Your task to perform on an android device: Open battery settings Image 0: 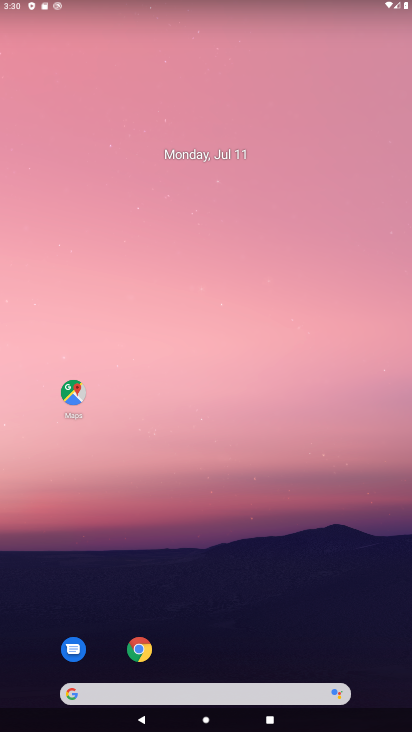
Step 0: drag from (200, 631) to (206, 167)
Your task to perform on an android device: Open battery settings Image 1: 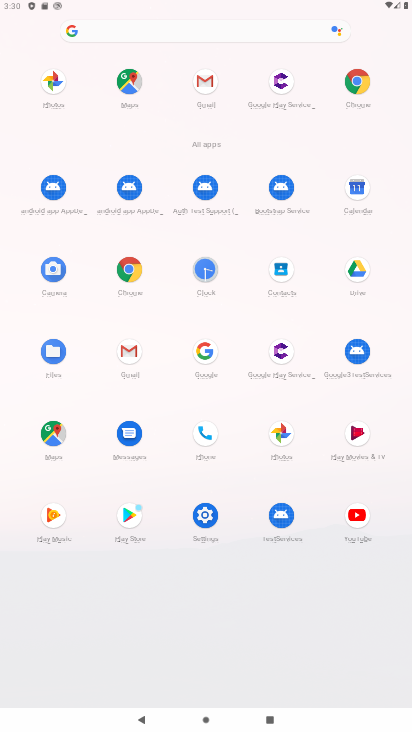
Step 1: click (210, 515)
Your task to perform on an android device: Open battery settings Image 2: 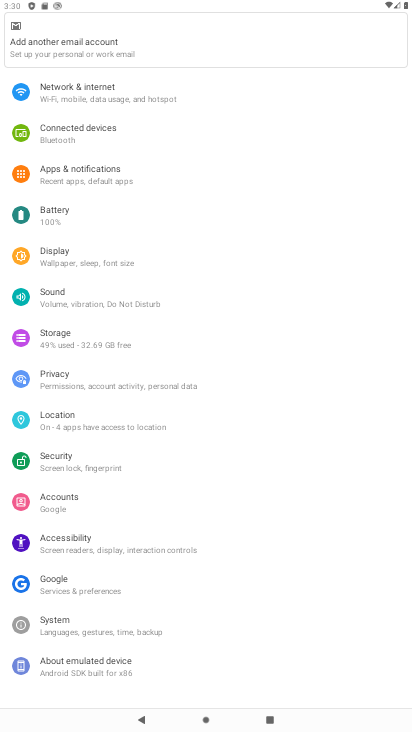
Step 2: click (85, 212)
Your task to perform on an android device: Open battery settings Image 3: 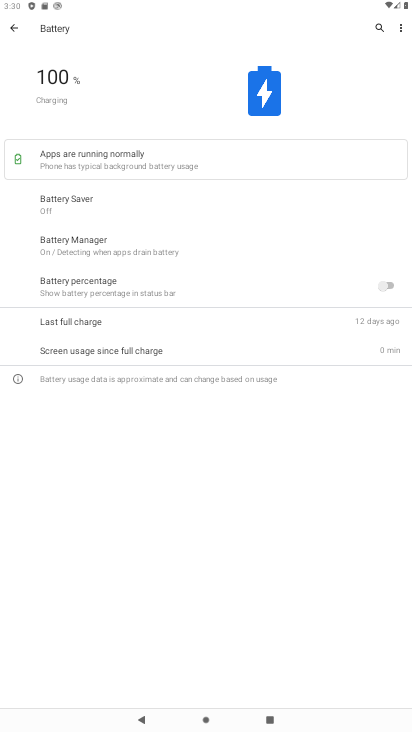
Step 3: task complete